Your task to perform on an android device: Open display settings Image 0: 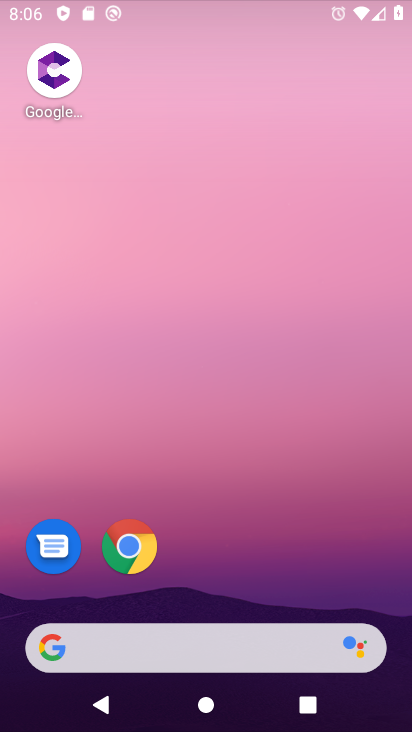
Step 0: drag from (229, 681) to (153, 130)
Your task to perform on an android device: Open display settings Image 1: 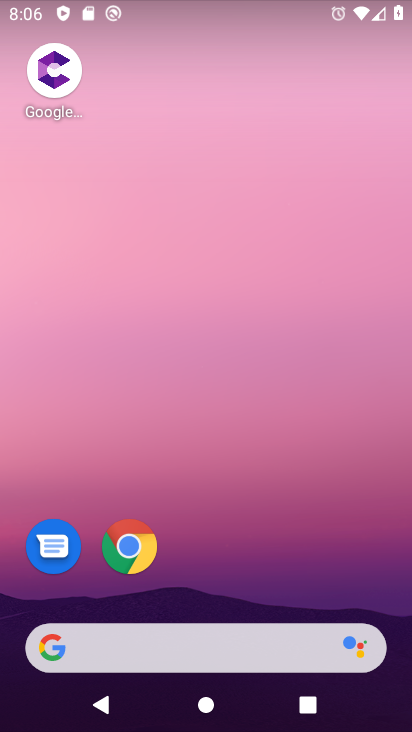
Step 1: drag from (259, 650) to (200, 16)
Your task to perform on an android device: Open display settings Image 2: 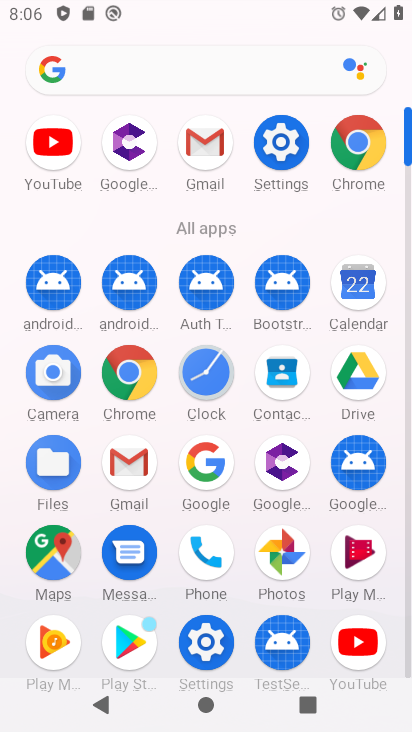
Step 2: click (288, 150)
Your task to perform on an android device: Open display settings Image 3: 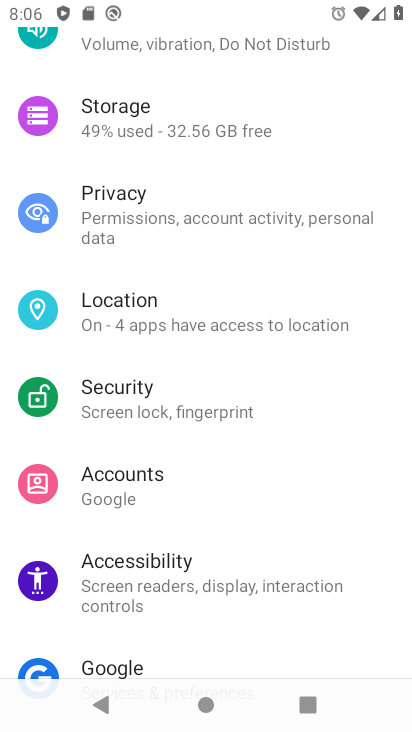
Step 3: drag from (206, 510) to (188, 165)
Your task to perform on an android device: Open display settings Image 4: 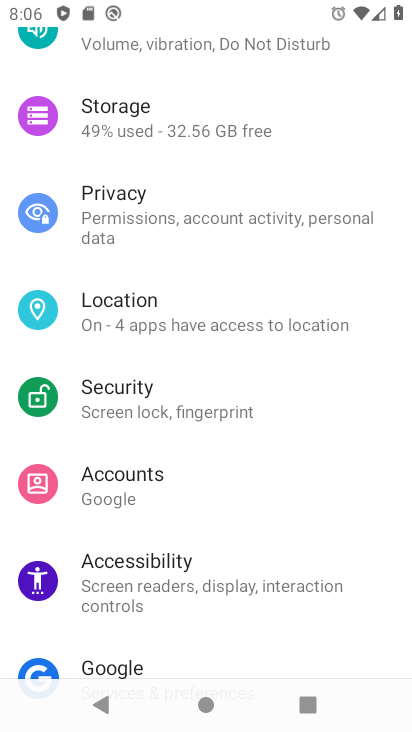
Step 4: drag from (253, 411) to (255, 139)
Your task to perform on an android device: Open display settings Image 5: 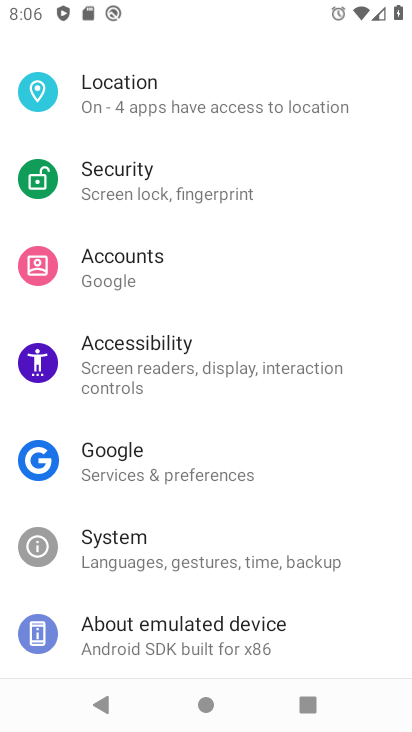
Step 5: drag from (178, 178) to (182, 462)
Your task to perform on an android device: Open display settings Image 6: 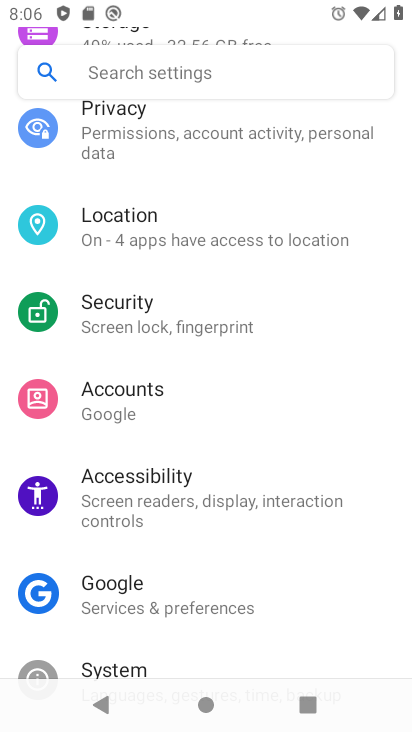
Step 6: drag from (164, 148) to (175, 473)
Your task to perform on an android device: Open display settings Image 7: 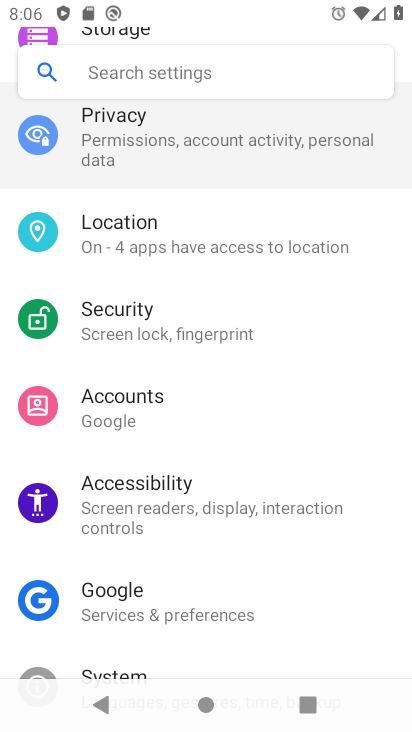
Step 7: drag from (181, 318) to (193, 440)
Your task to perform on an android device: Open display settings Image 8: 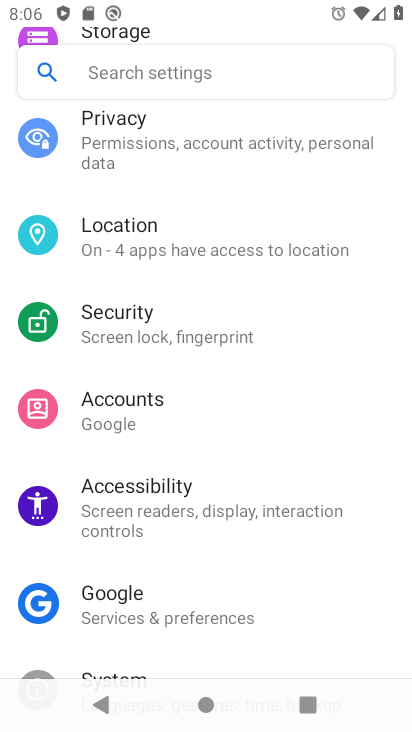
Step 8: drag from (176, 213) to (186, 457)
Your task to perform on an android device: Open display settings Image 9: 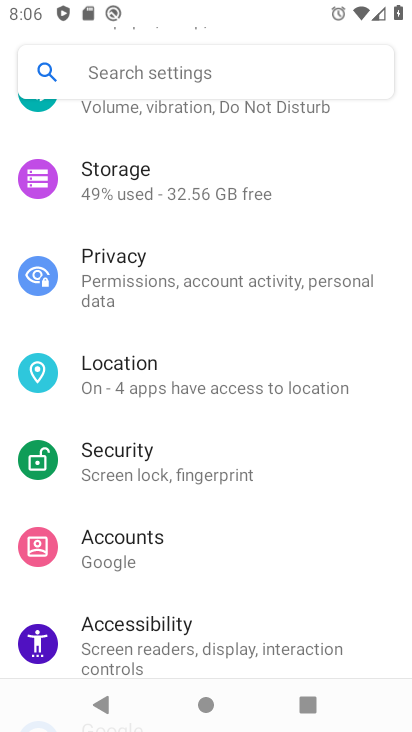
Step 9: drag from (166, 229) to (163, 505)
Your task to perform on an android device: Open display settings Image 10: 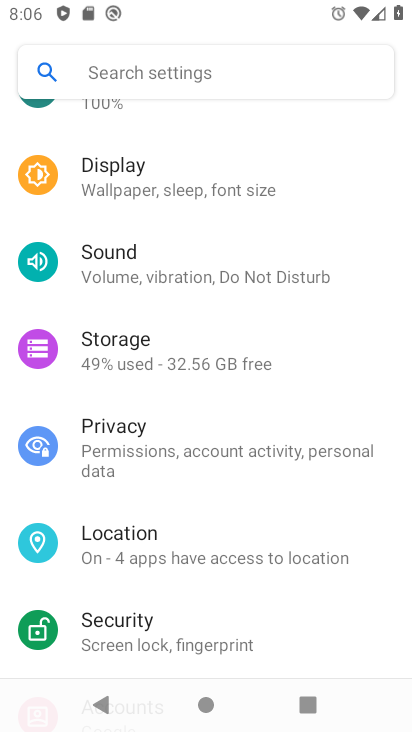
Step 10: drag from (144, 210) to (142, 452)
Your task to perform on an android device: Open display settings Image 11: 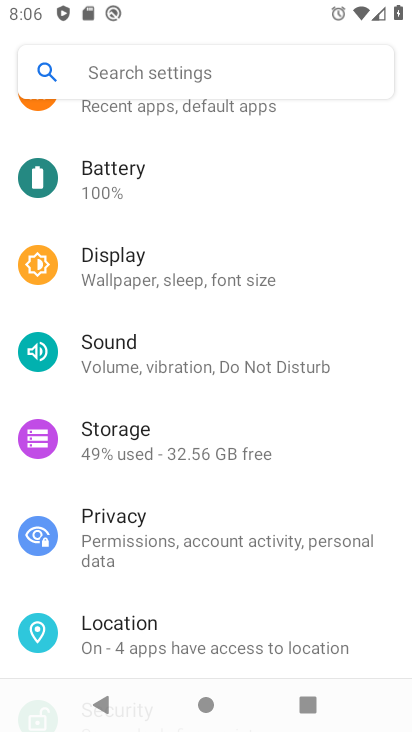
Step 11: drag from (109, 150) to (137, 527)
Your task to perform on an android device: Open display settings Image 12: 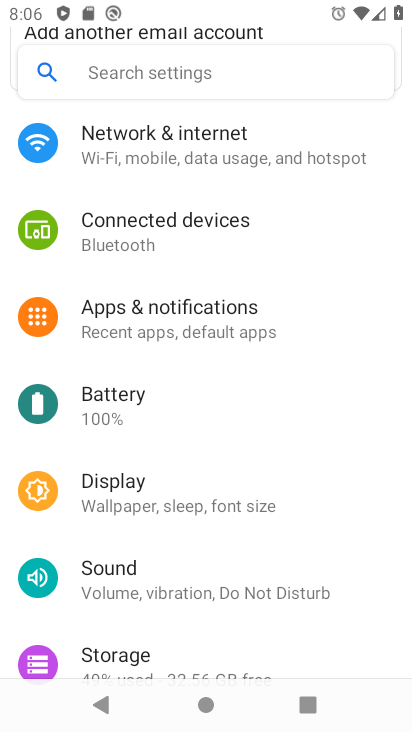
Step 12: click (111, 493)
Your task to perform on an android device: Open display settings Image 13: 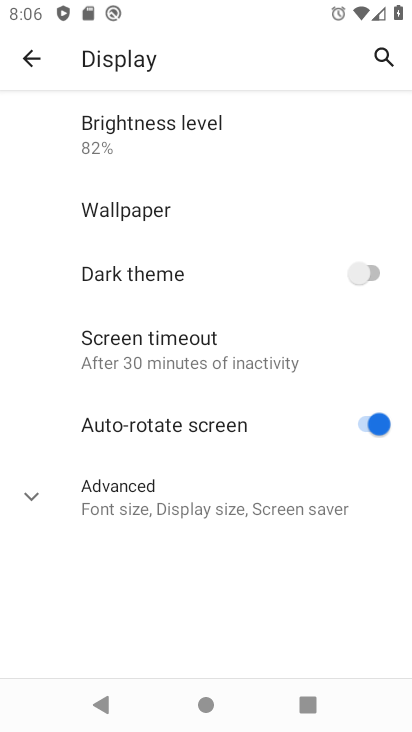
Step 13: task complete